Your task to perform on an android device: open app "Airtel Thanks" (install if not already installed) and enter user name: "acclaimed@inbox.com" and password: "dichotomize" Image 0: 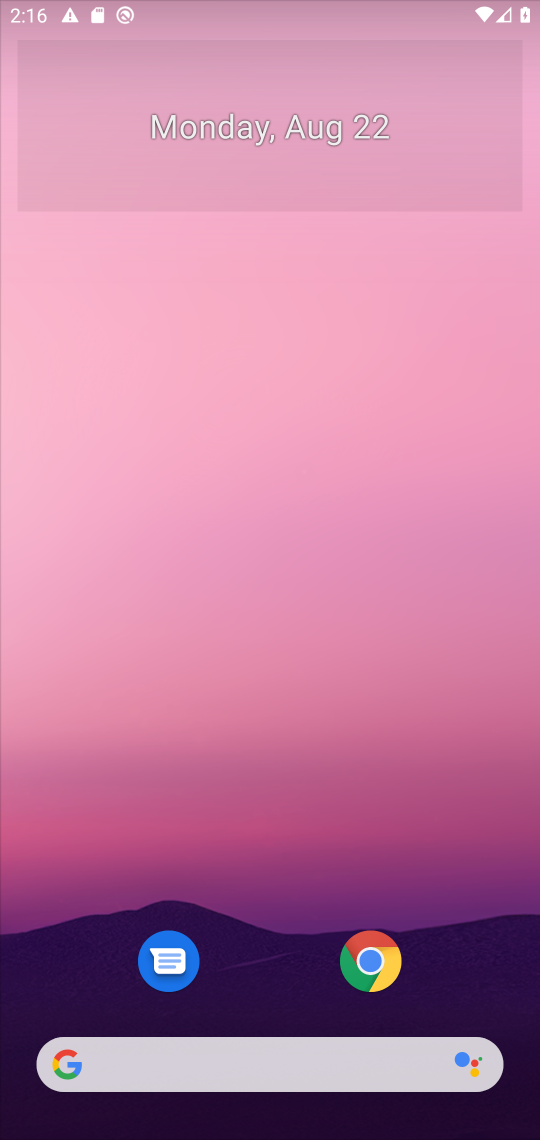
Step 0: press home button
Your task to perform on an android device: open app "Airtel Thanks" (install if not already installed) and enter user name: "acclaimed@inbox.com" and password: "dichotomize" Image 1: 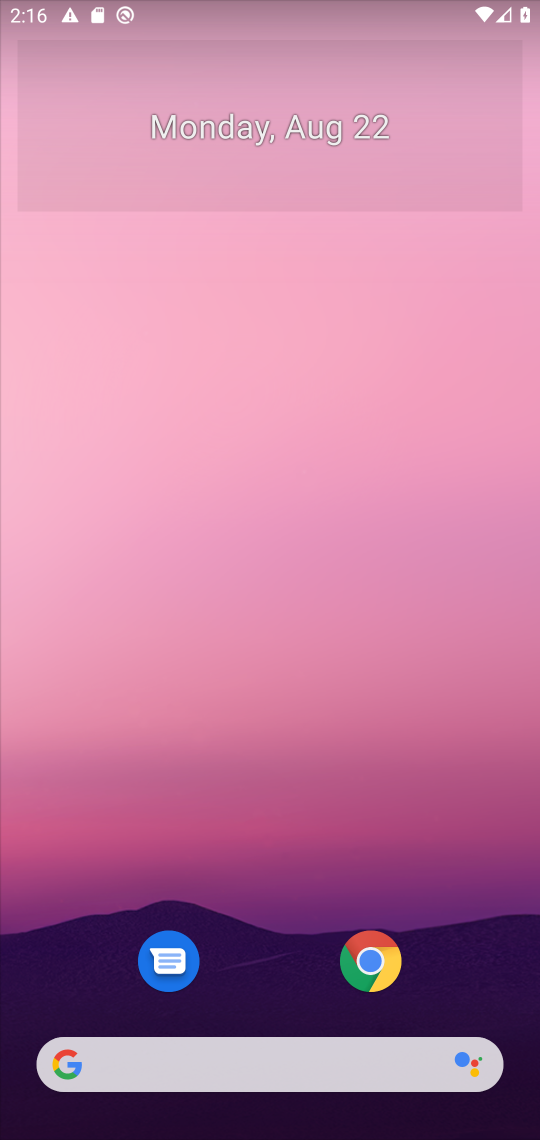
Step 1: drag from (461, 954) to (466, 157)
Your task to perform on an android device: open app "Airtel Thanks" (install if not already installed) and enter user name: "acclaimed@inbox.com" and password: "dichotomize" Image 2: 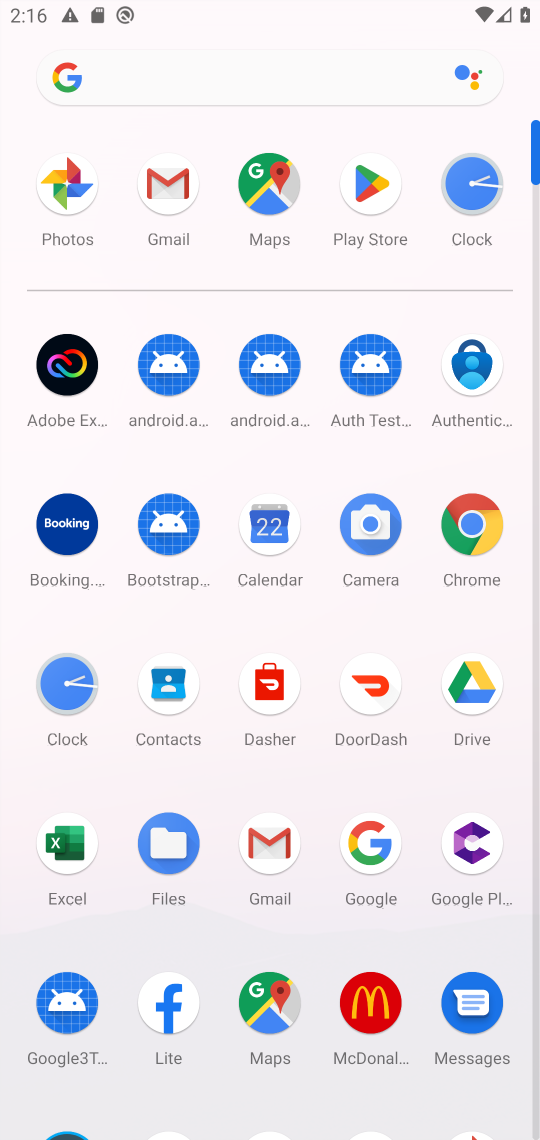
Step 2: click (366, 186)
Your task to perform on an android device: open app "Airtel Thanks" (install if not already installed) and enter user name: "acclaimed@inbox.com" and password: "dichotomize" Image 3: 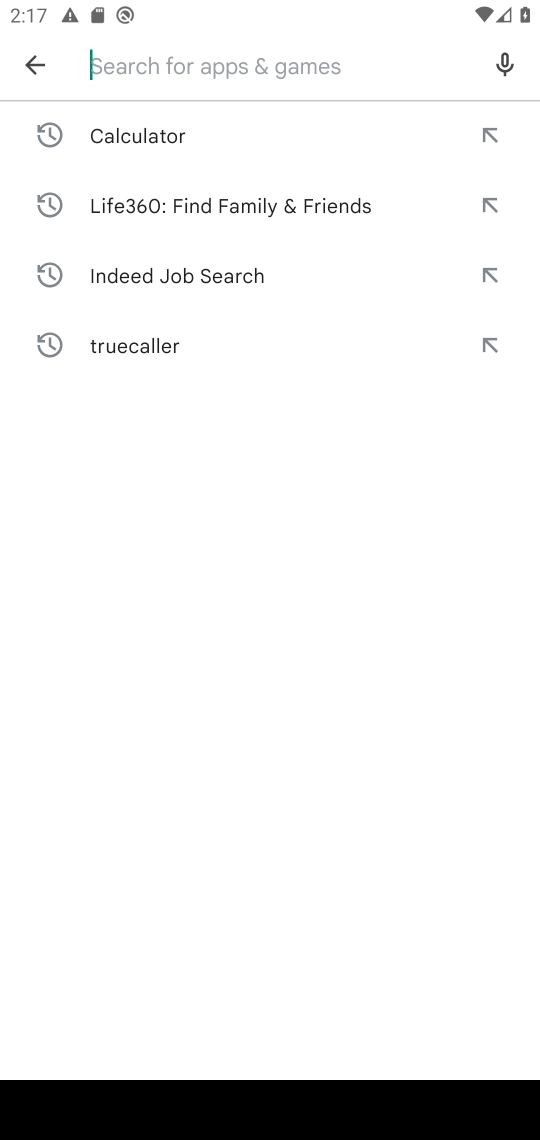
Step 3: press enter
Your task to perform on an android device: open app "Airtel Thanks" (install if not already installed) and enter user name: "acclaimed@inbox.com" and password: "dichotomize" Image 4: 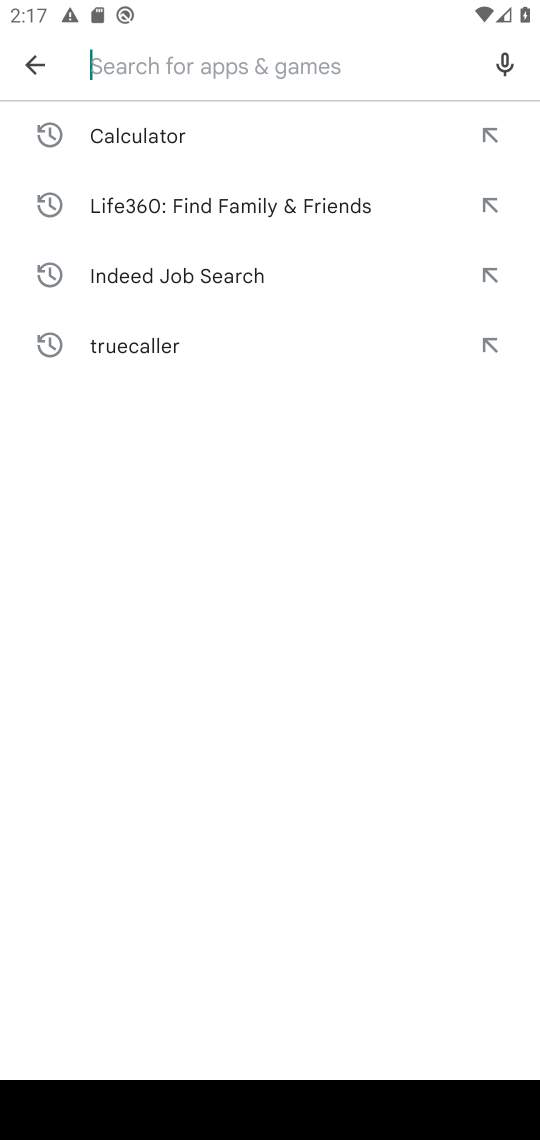
Step 4: type "airtel thanks"
Your task to perform on an android device: open app "Airtel Thanks" (install if not already installed) and enter user name: "acclaimed@inbox.com" and password: "dichotomize" Image 5: 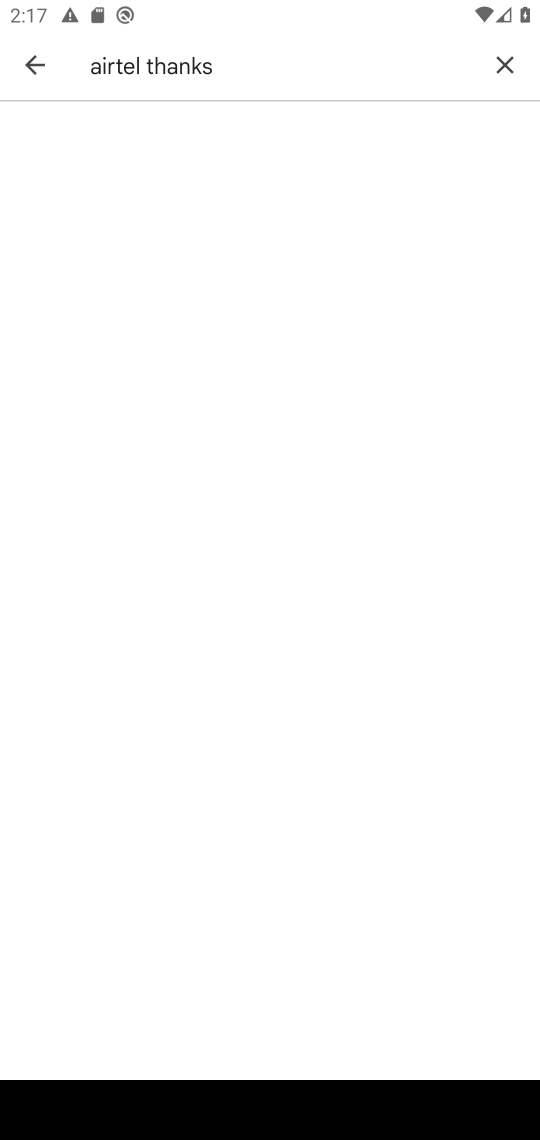
Step 5: task complete